Your task to perform on an android device: What is the recent news? Image 0: 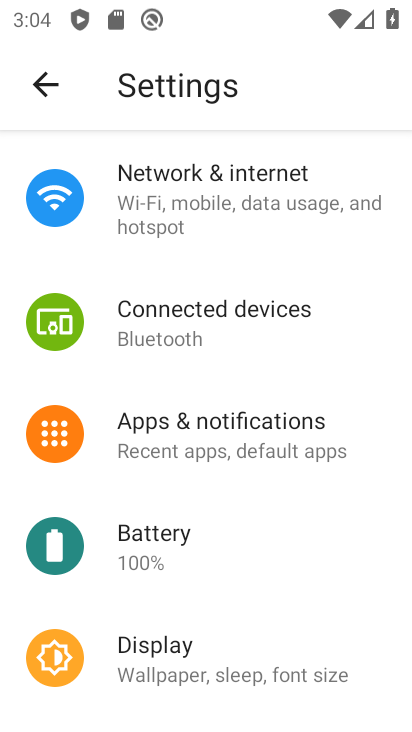
Step 0: press home button
Your task to perform on an android device: What is the recent news? Image 1: 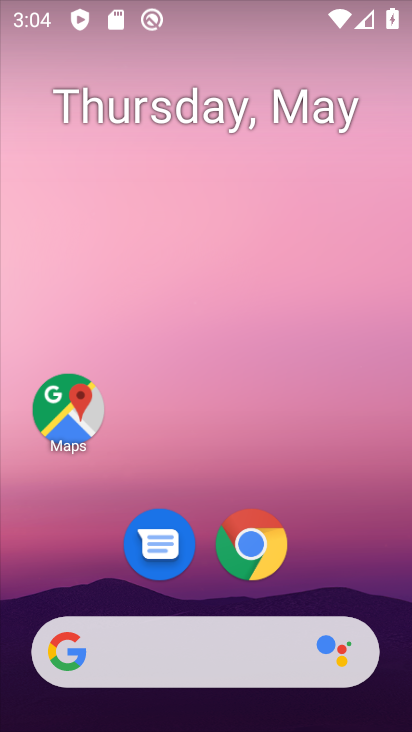
Step 1: click (206, 681)
Your task to perform on an android device: What is the recent news? Image 2: 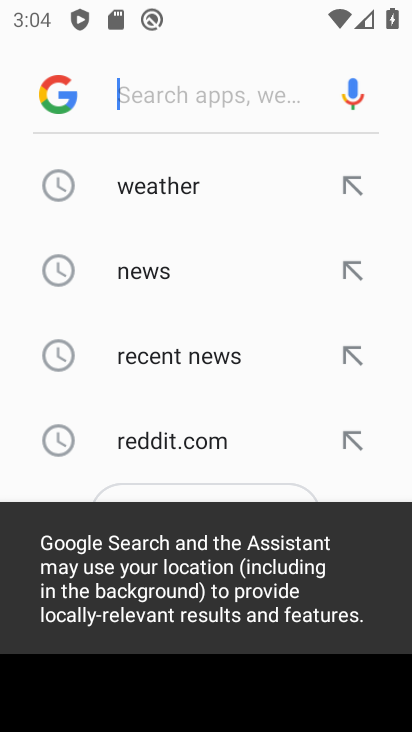
Step 2: click (200, 366)
Your task to perform on an android device: What is the recent news? Image 3: 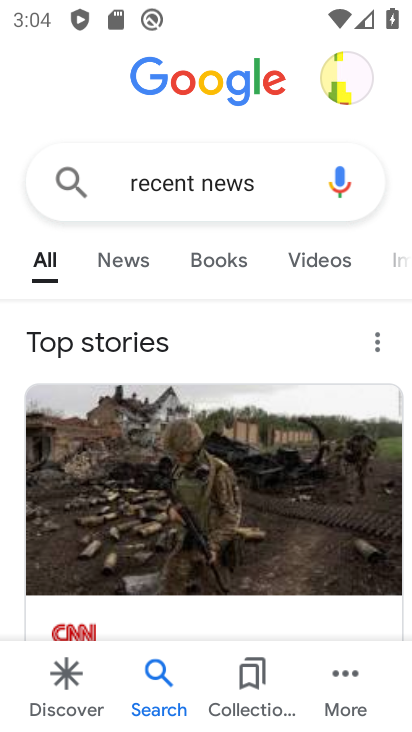
Step 3: task complete